Your task to perform on an android device: delete the emails in spam in the gmail app Image 0: 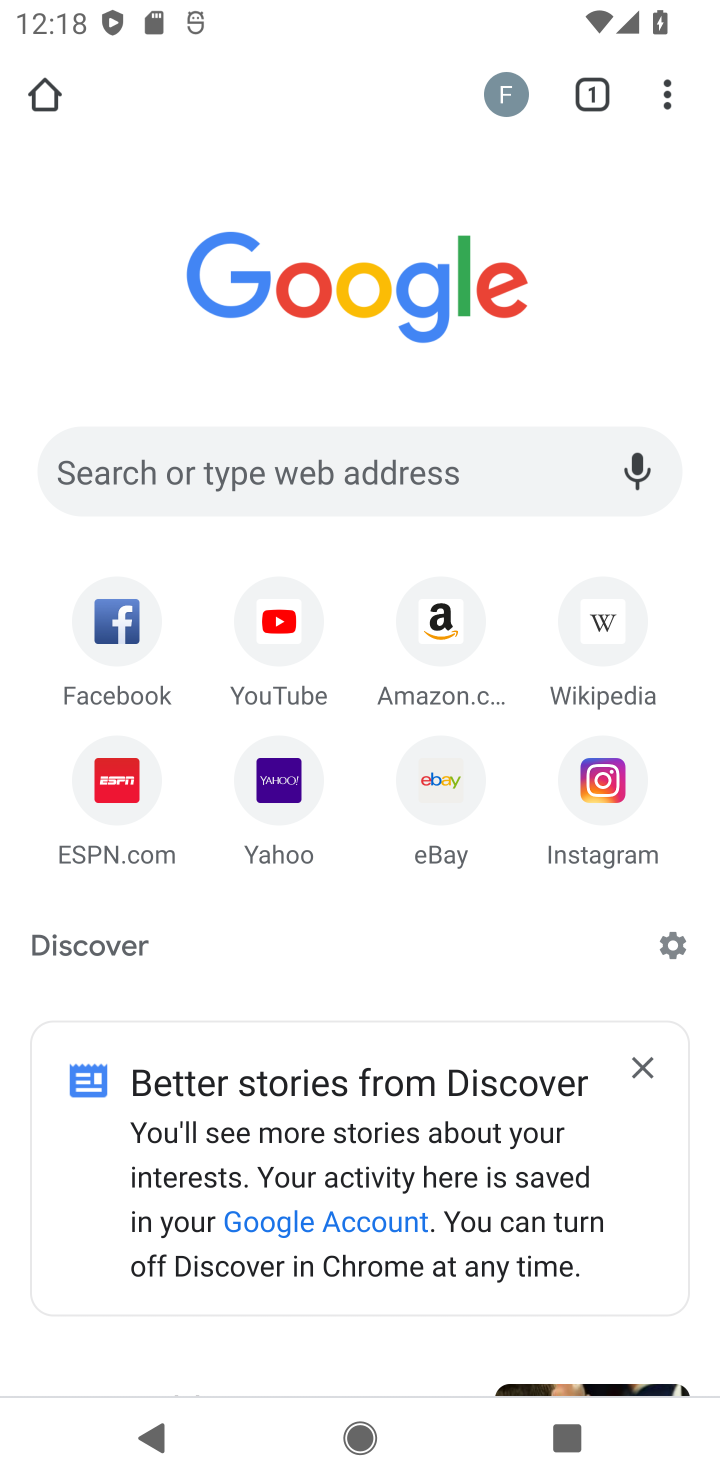
Step 0: press home button
Your task to perform on an android device: delete the emails in spam in the gmail app Image 1: 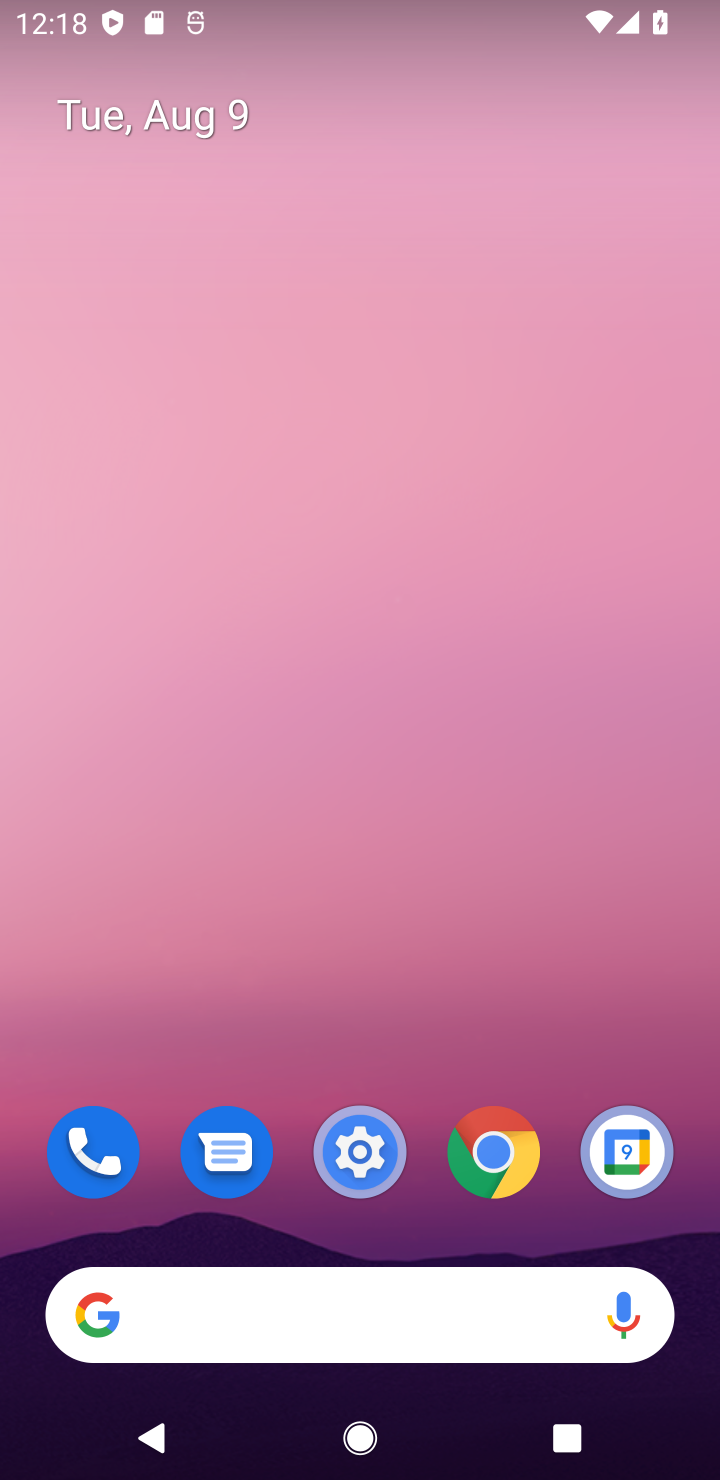
Step 1: drag from (422, 1028) to (512, 390)
Your task to perform on an android device: delete the emails in spam in the gmail app Image 2: 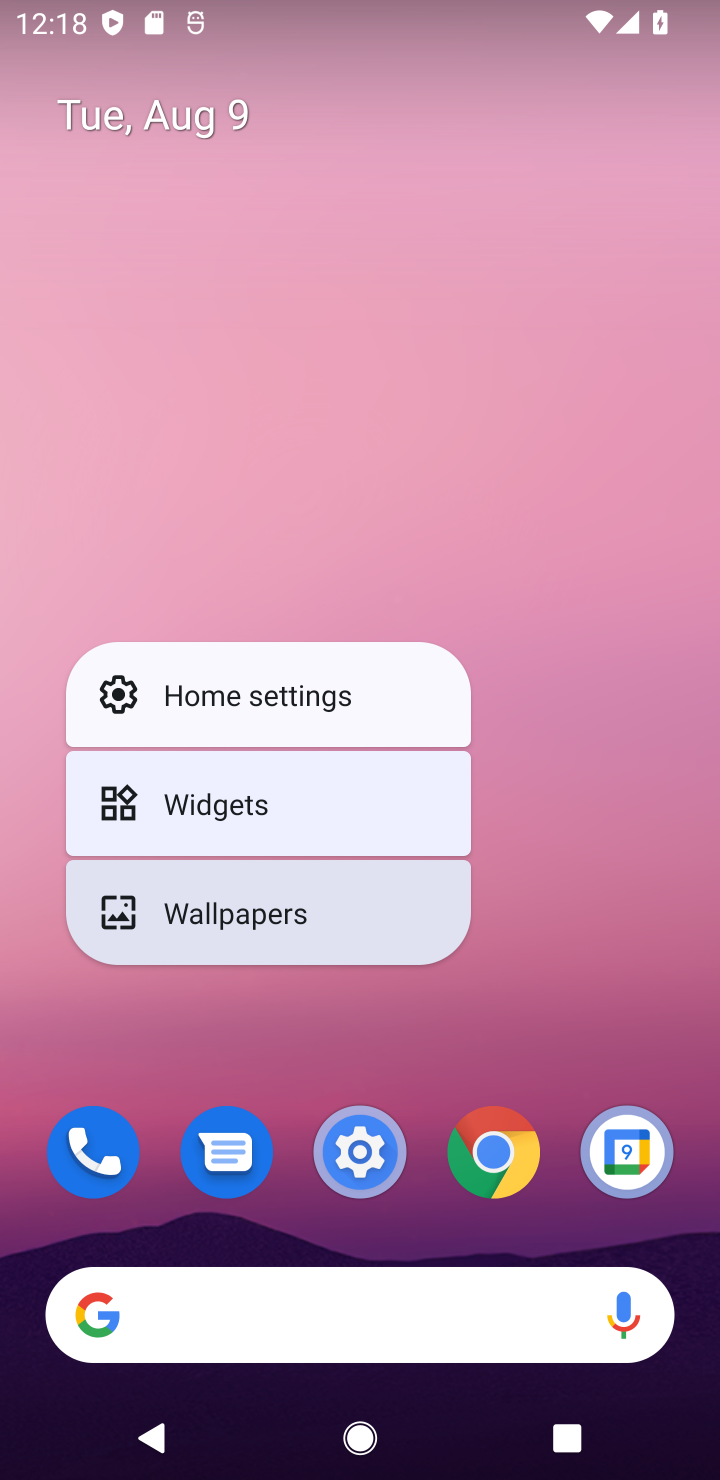
Step 2: click (496, 1038)
Your task to perform on an android device: delete the emails in spam in the gmail app Image 3: 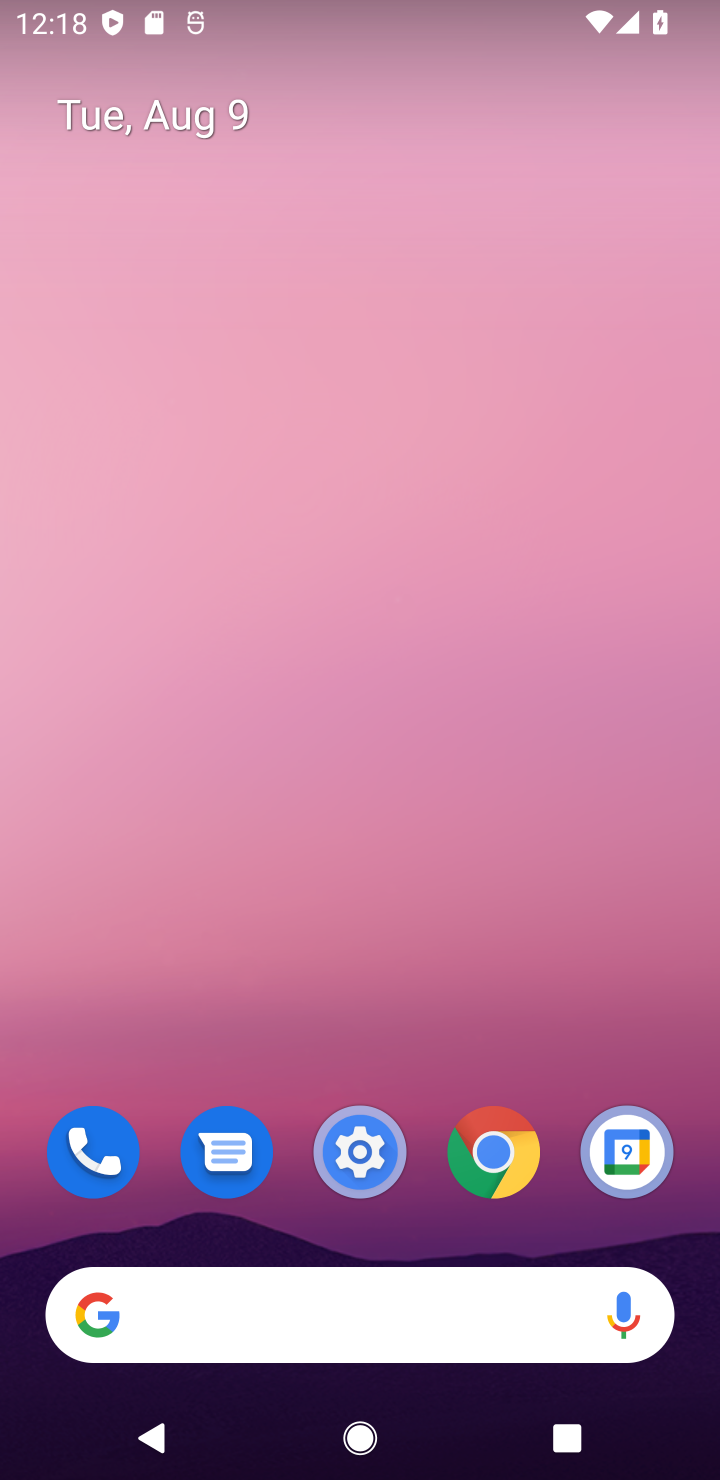
Step 3: drag from (446, 1078) to (432, 447)
Your task to perform on an android device: delete the emails in spam in the gmail app Image 4: 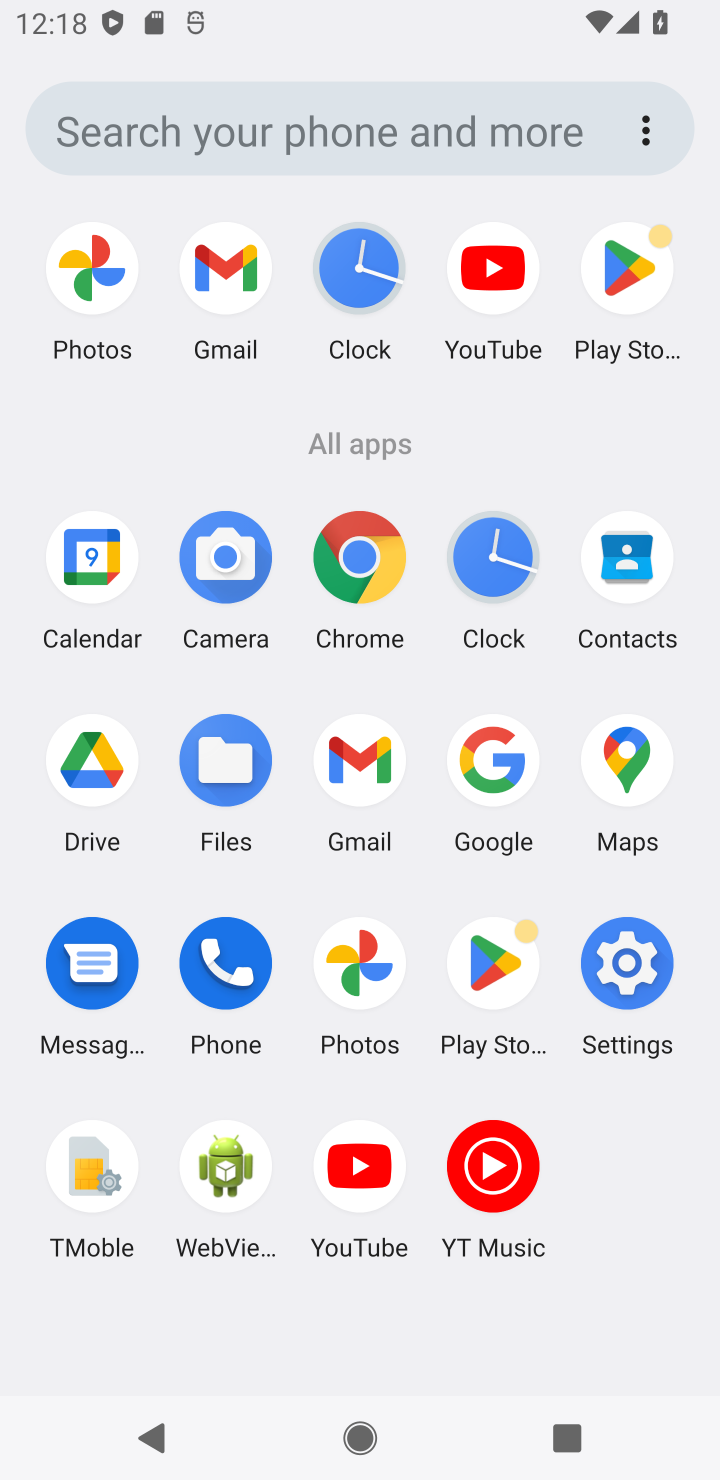
Step 4: click (348, 784)
Your task to perform on an android device: delete the emails in spam in the gmail app Image 5: 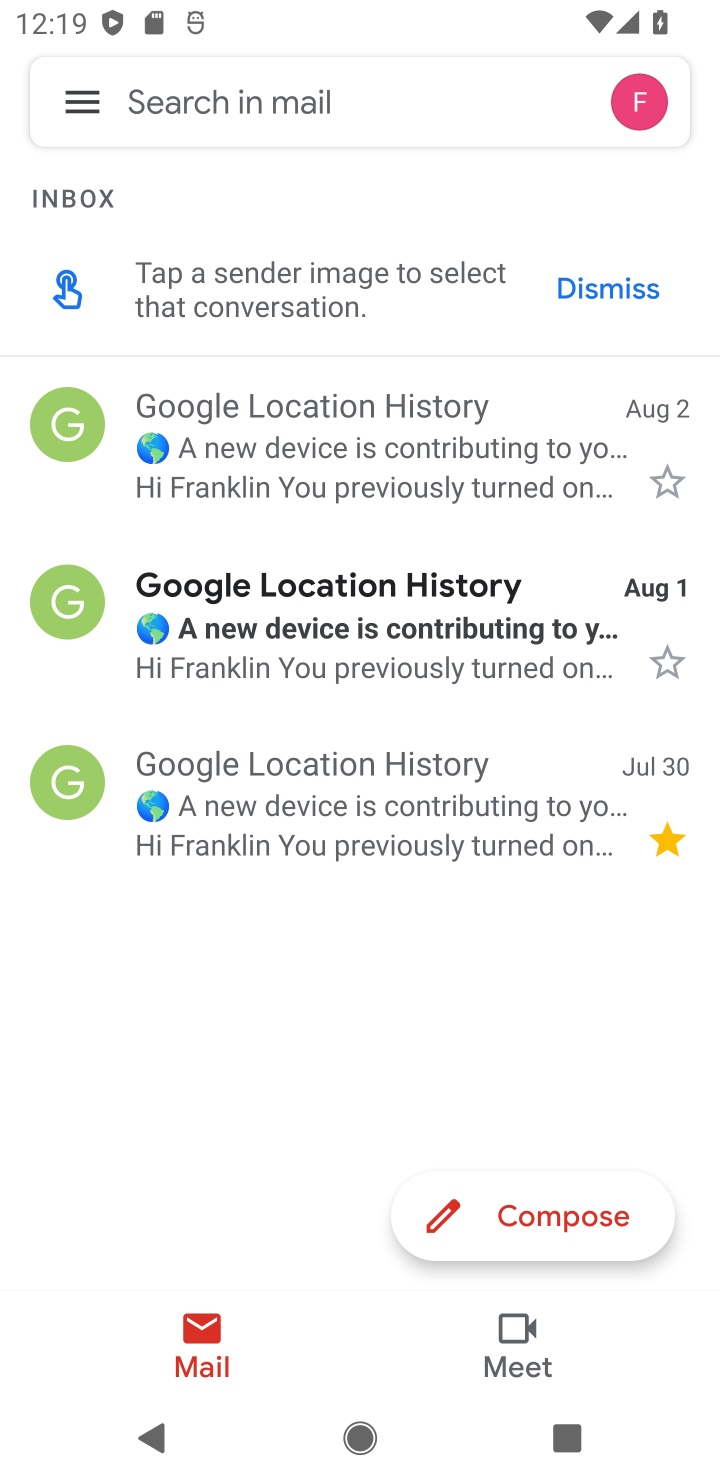
Step 5: click (78, 99)
Your task to perform on an android device: delete the emails in spam in the gmail app Image 6: 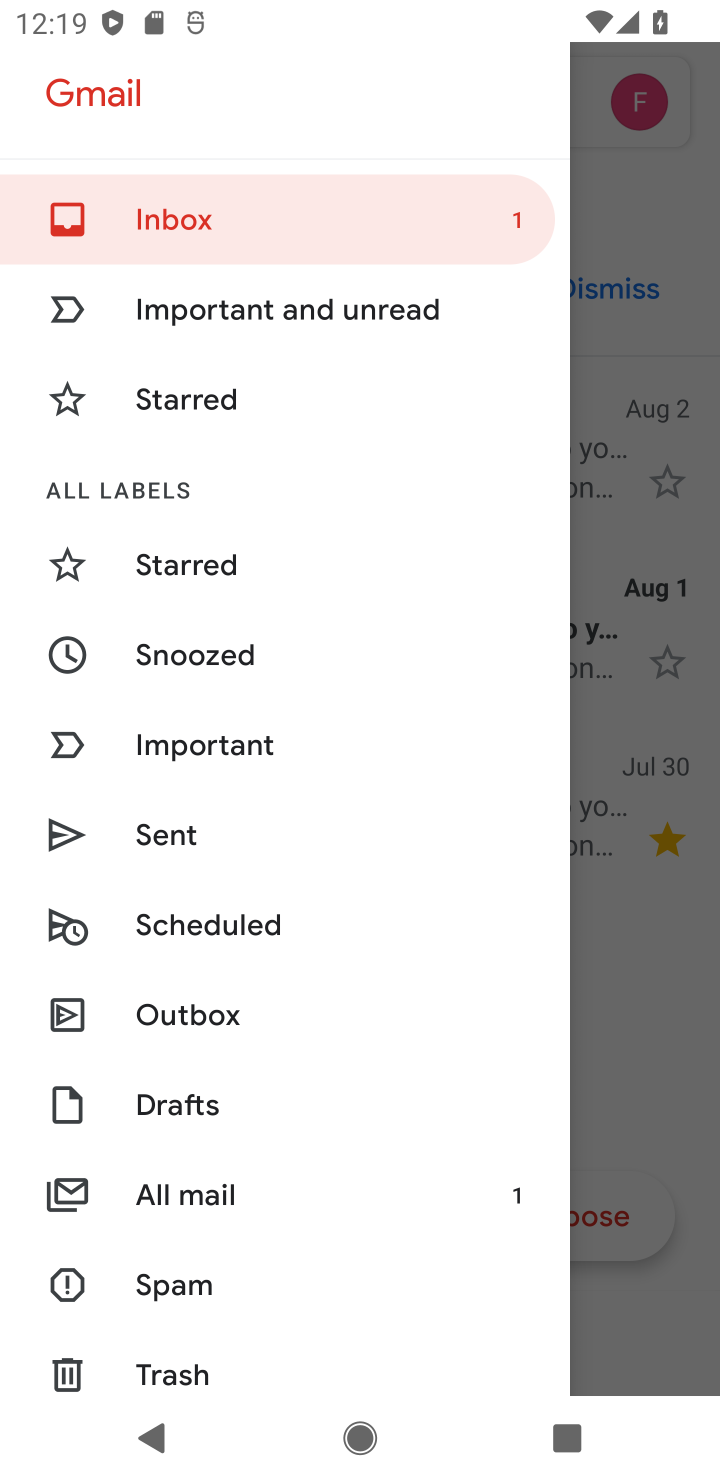
Step 6: click (185, 1267)
Your task to perform on an android device: delete the emails in spam in the gmail app Image 7: 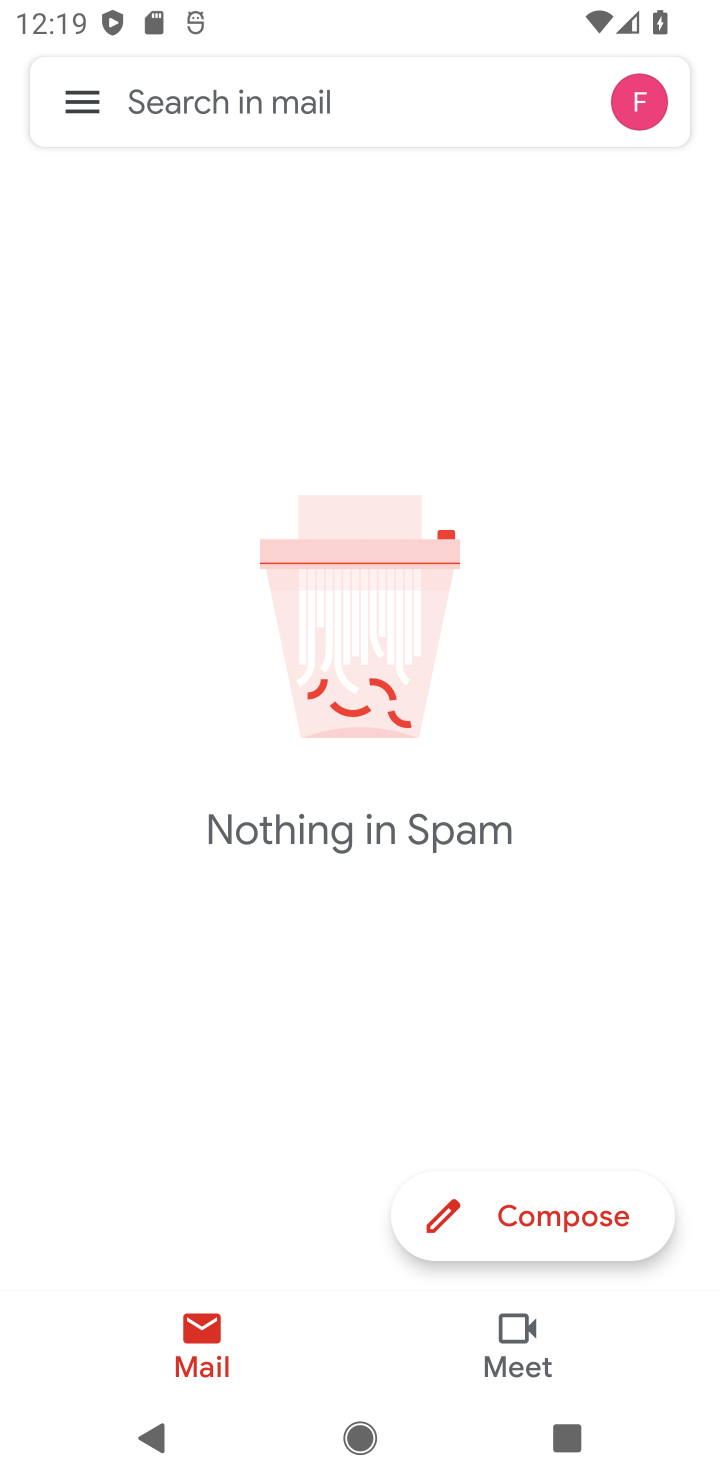
Step 7: task complete